Your task to perform on an android device: Open Chrome and go to settings Image 0: 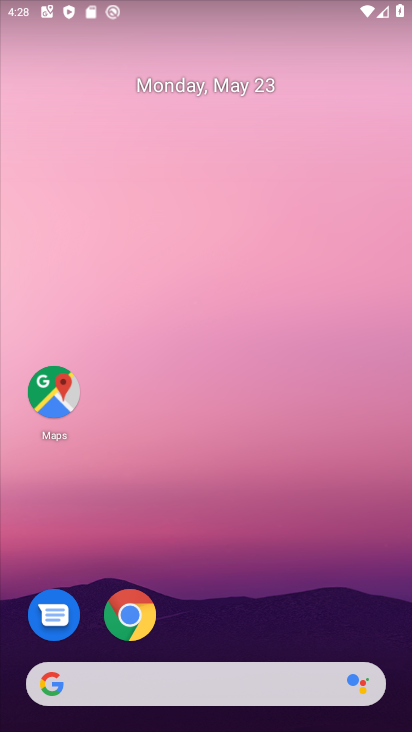
Step 0: drag from (268, 479) to (286, 697)
Your task to perform on an android device: Open Chrome and go to settings Image 1: 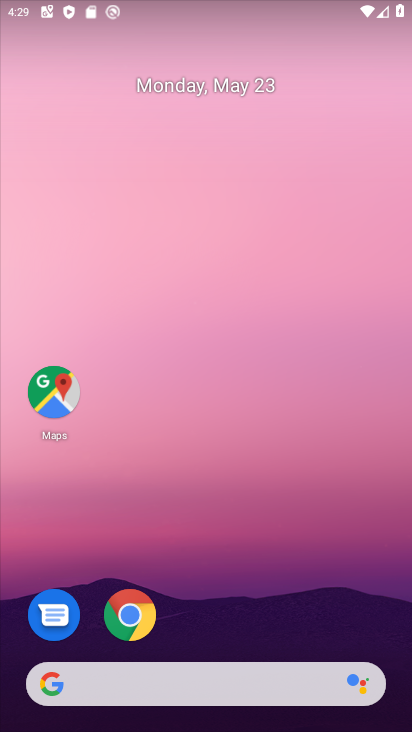
Step 1: click (129, 612)
Your task to perform on an android device: Open Chrome and go to settings Image 2: 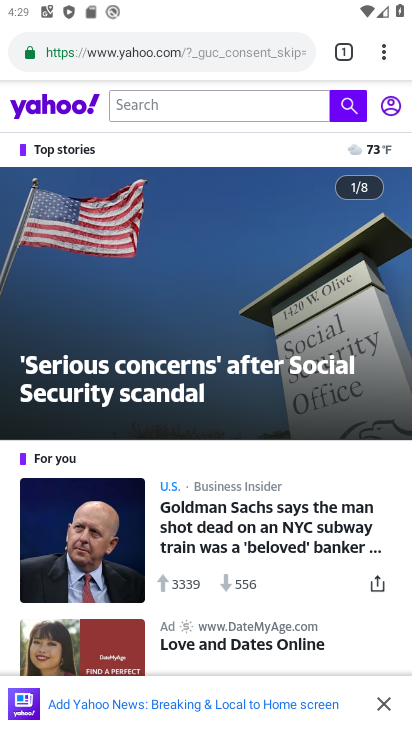
Step 2: task complete